Your task to perform on an android device: Go to eBay Image 0: 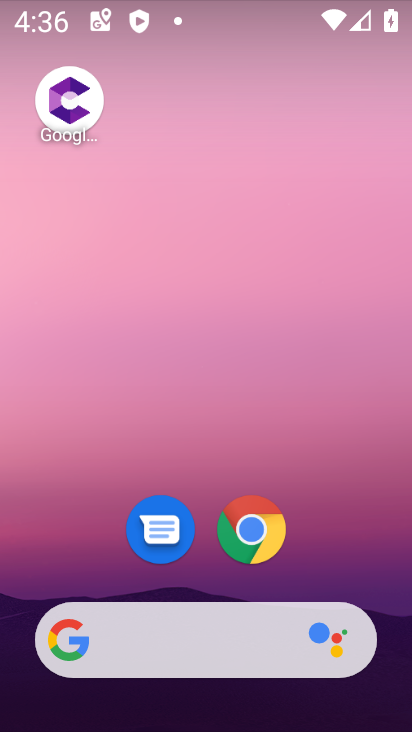
Step 0: drag from (322, 547) to (257, 96)
Your task to perform on an android device: Go to eBay Image 1: 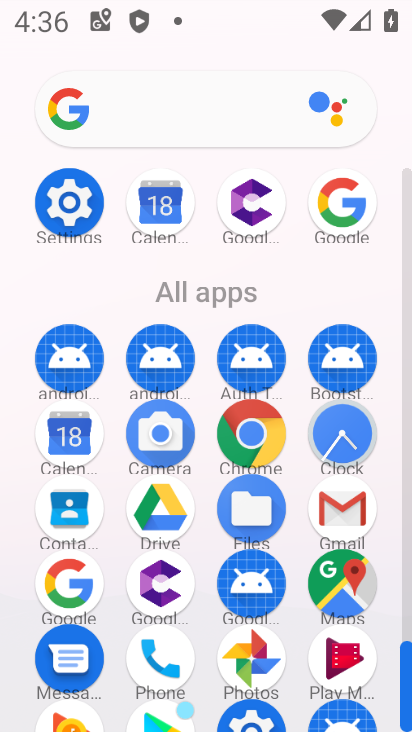
Step 1: click (337, 201)
Your task to perform on an android device: Go to eBay Image 2: 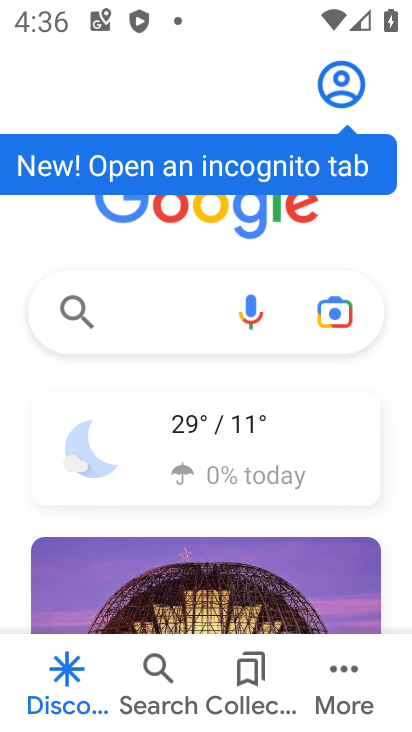
Step 2: click (143, 309)
Your task to perform on an android device: Go to eBay Image 3: 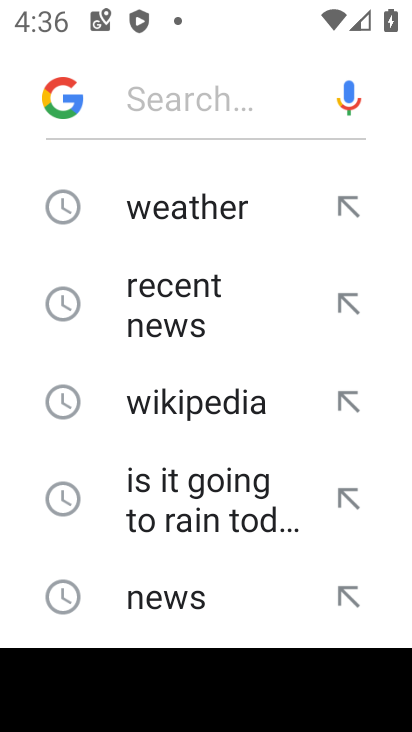
Step 3: type "eBay"
Your task to perform on an android device: Go to eBay Image 4: 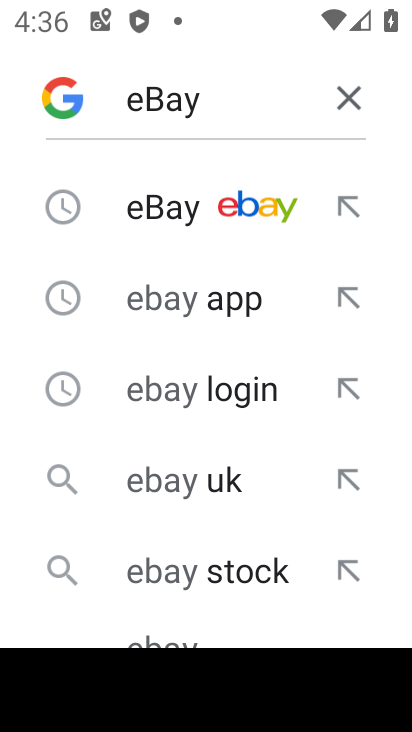
Step 4: click (154, 209)
Your task to perform on an android device: Go to eBay Image 5: 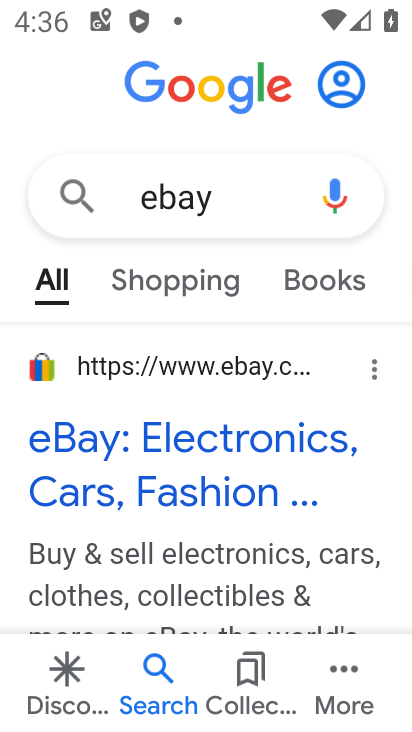
Step 5: click (195, 446)
Your task to perform on an android device: Go to eBay Image 6: 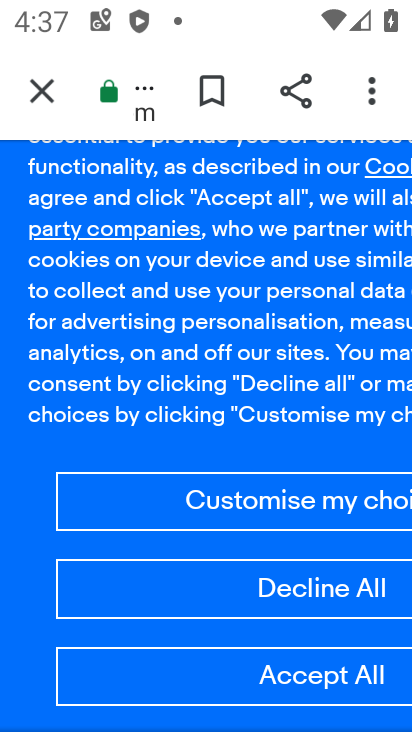
Step 6: task complete